Your task to perform on an android device: Open location settings Image 0: 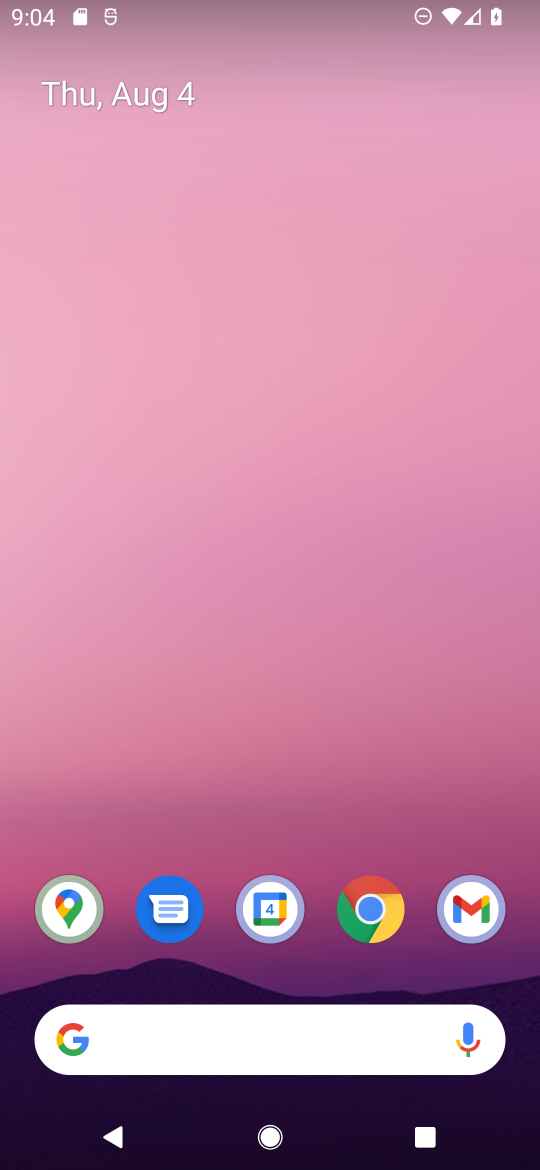
Step 0: drag from (419, 812) to (446, 174)
Your task to perform on an android device: Open location settings Image 1: 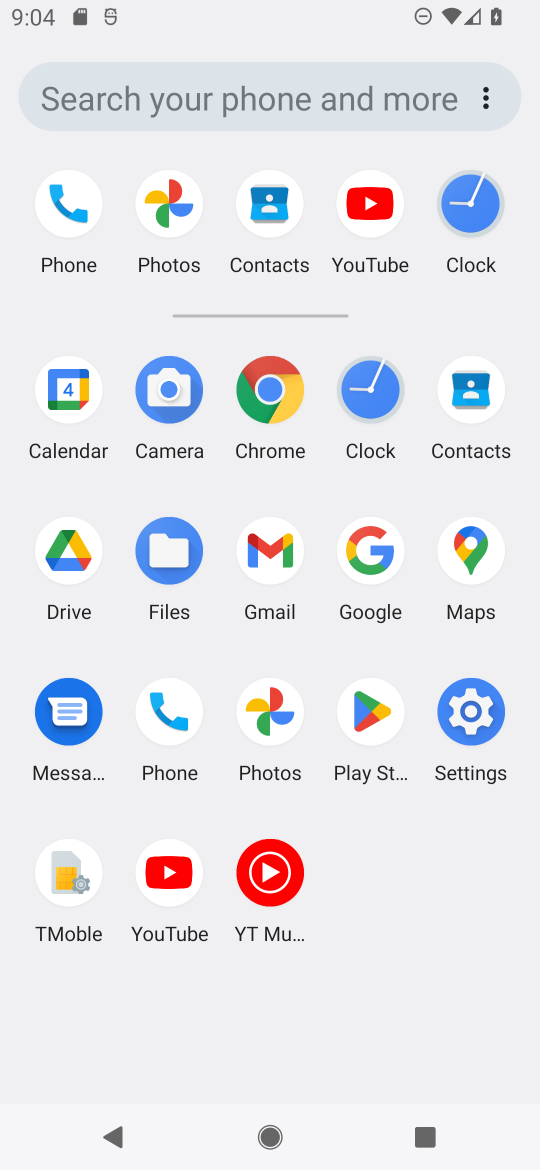
Step 1: click (473, 723)
Your task to perform on an android device: Open location settings Image 2: 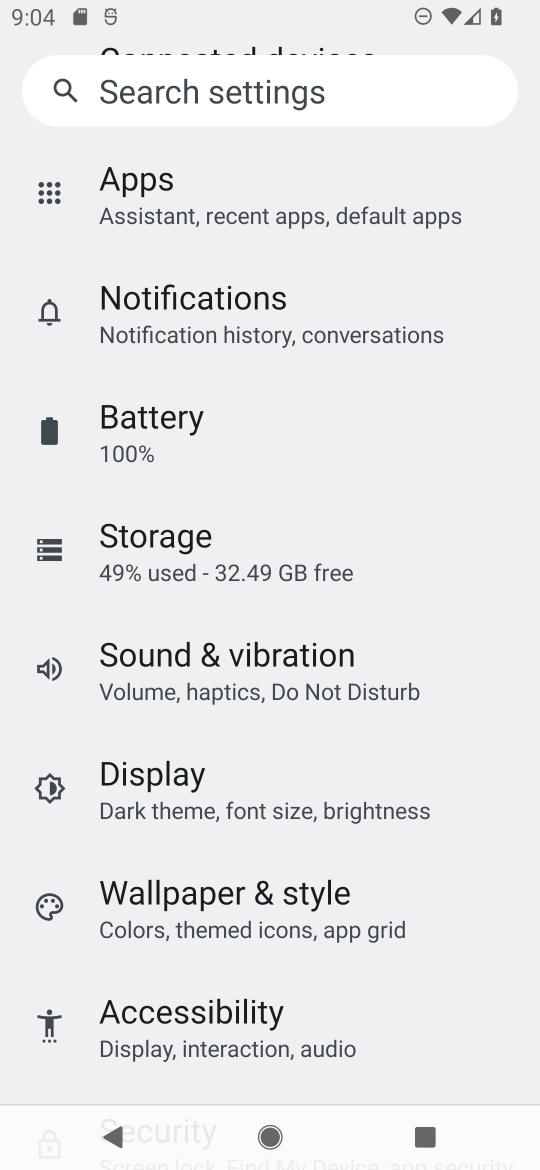
Step 2: drag from (452, 986) to (484, 721)
Your task to perform on an android device: Open location settings Image 3: 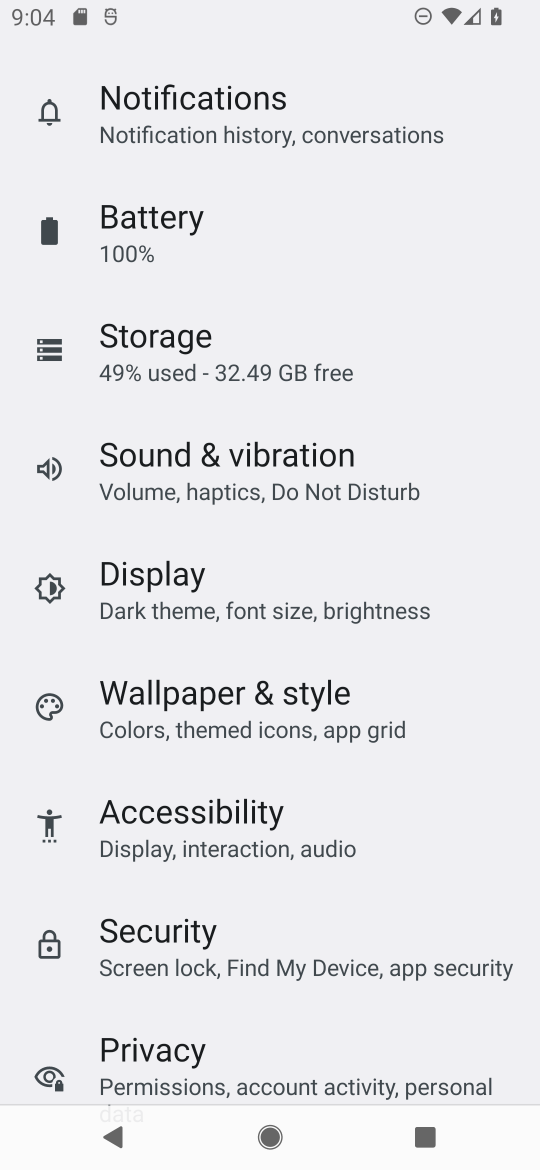
Step 3: drag from (452, 1030) to (483, 737)
Your task to perform on an android device: Open location settings Image 4: 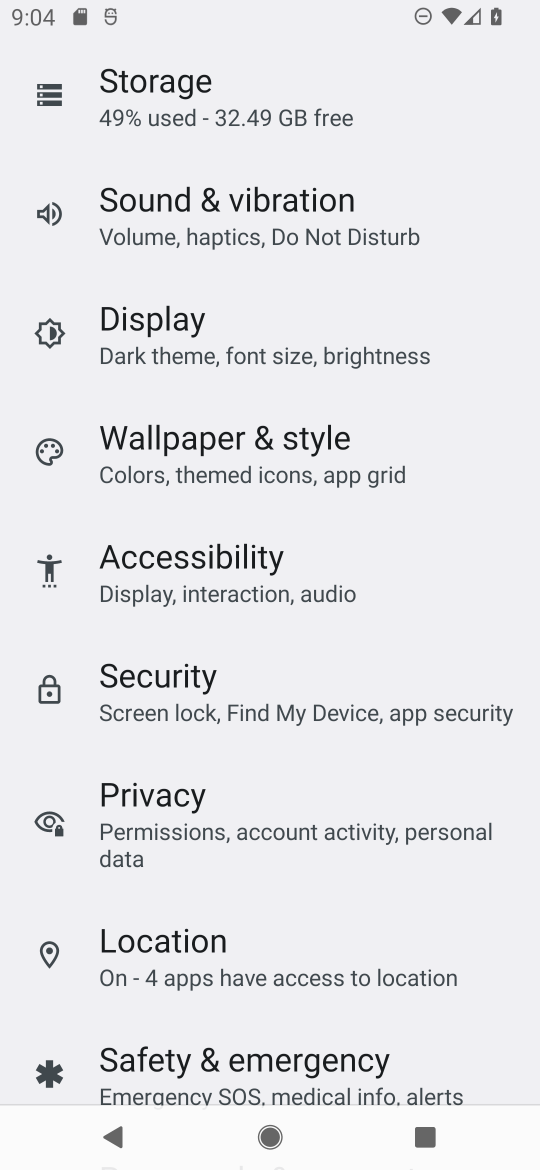
Step 4: drag from (473, 1022) to (495, 712)
Your task to perform on an android device: Open location settings Image 5: 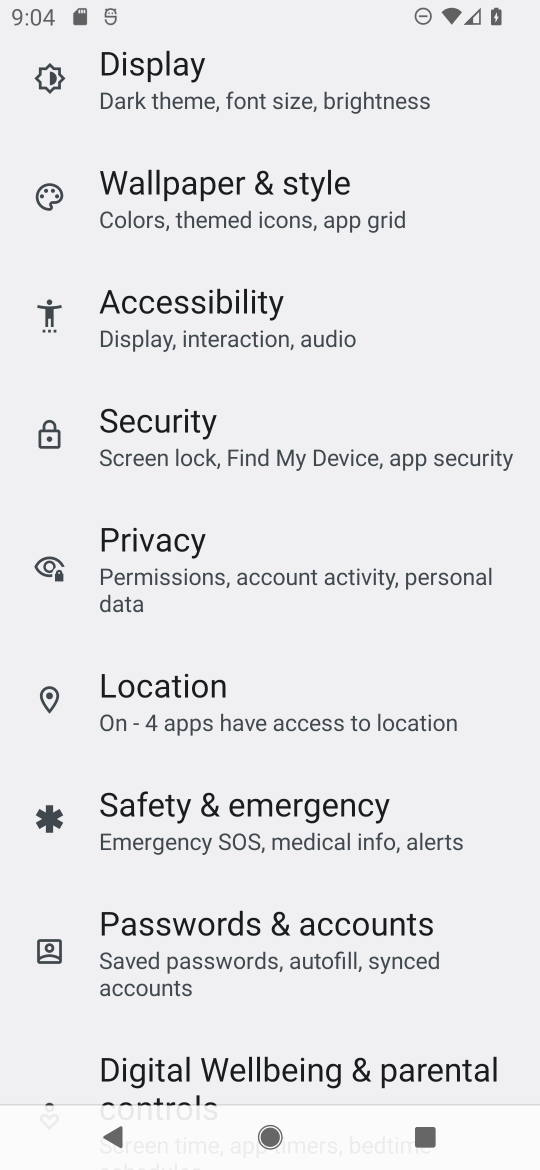
Step 5: drag from (495, 981) to (508, 599)
Your task to perform on an android device: Open location settings Image 6: 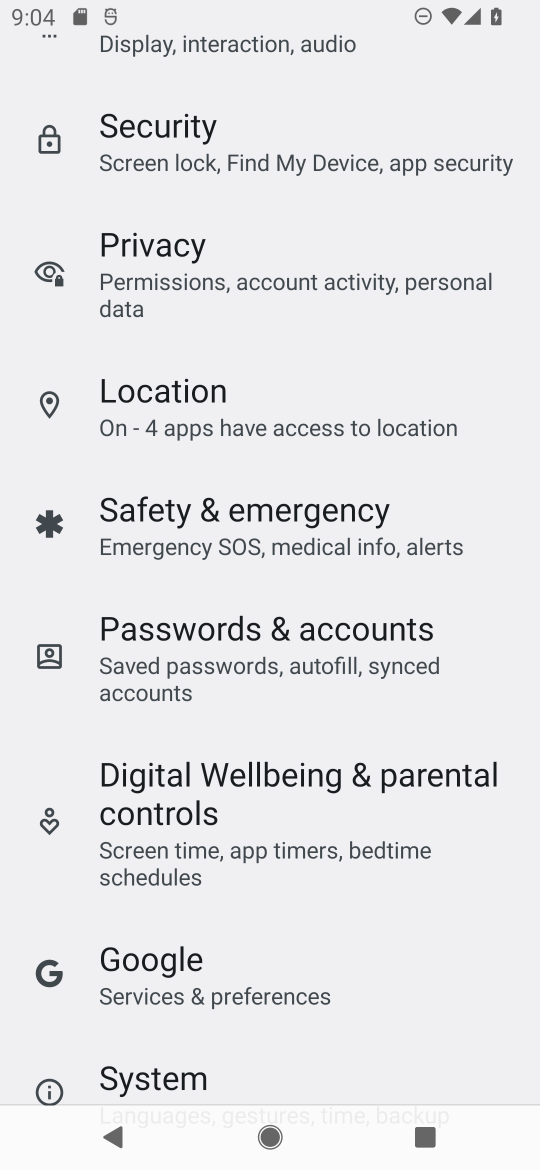
Step 6: drag from (458, 913) to (485, 483)
Your task to perform on an android device: Open location settings Image 7: 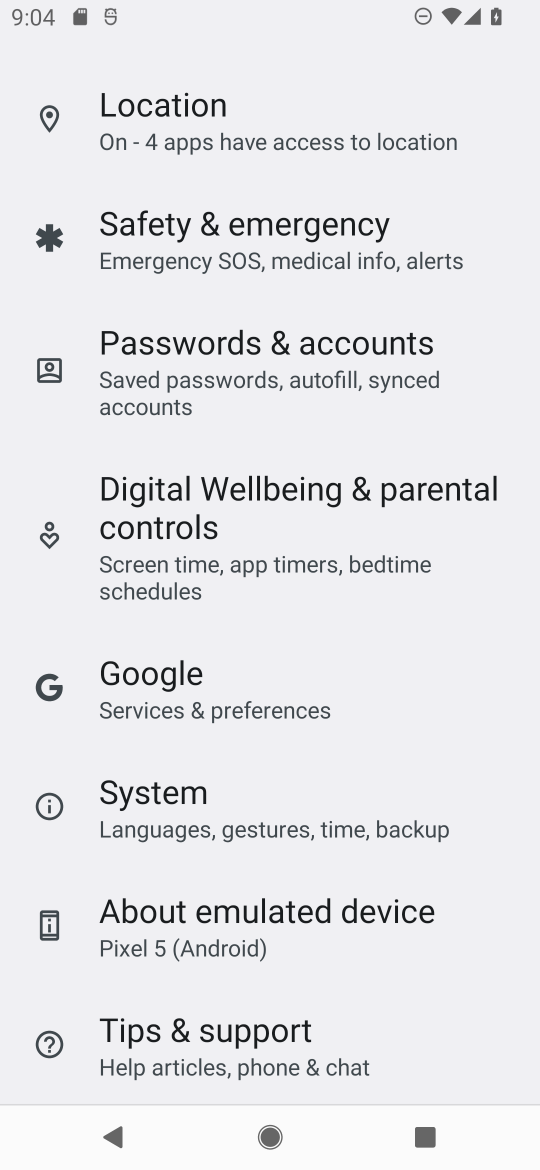
Step 7: drag from (424, 930) to (457, 592)
Your task to perform on an android device: Open location settings Image 8: 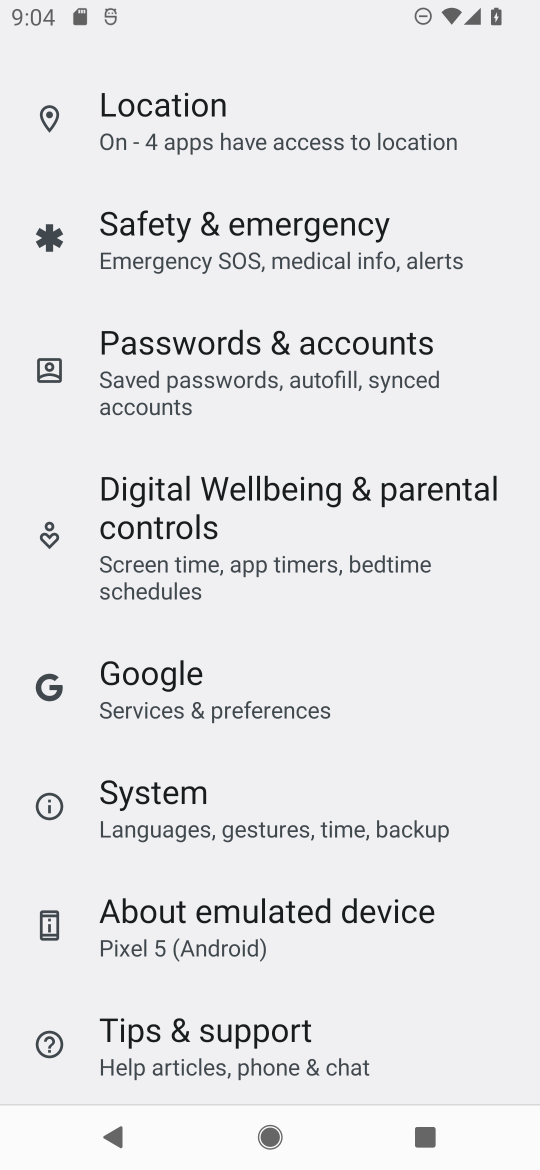
Step 8: drag from (477, 356) to (477, 643)
Your task to perform on an android device: Open location settings Image 9: 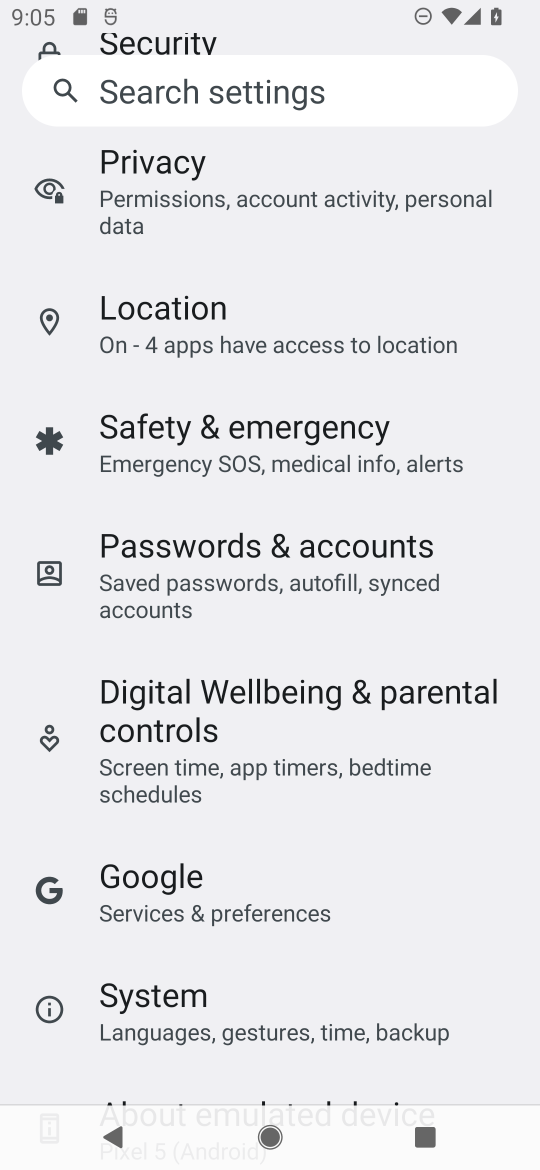
Step 9: drag from (418, 961) to (460, 705)
Your task to perform on an android device: Open location settings Image 10: 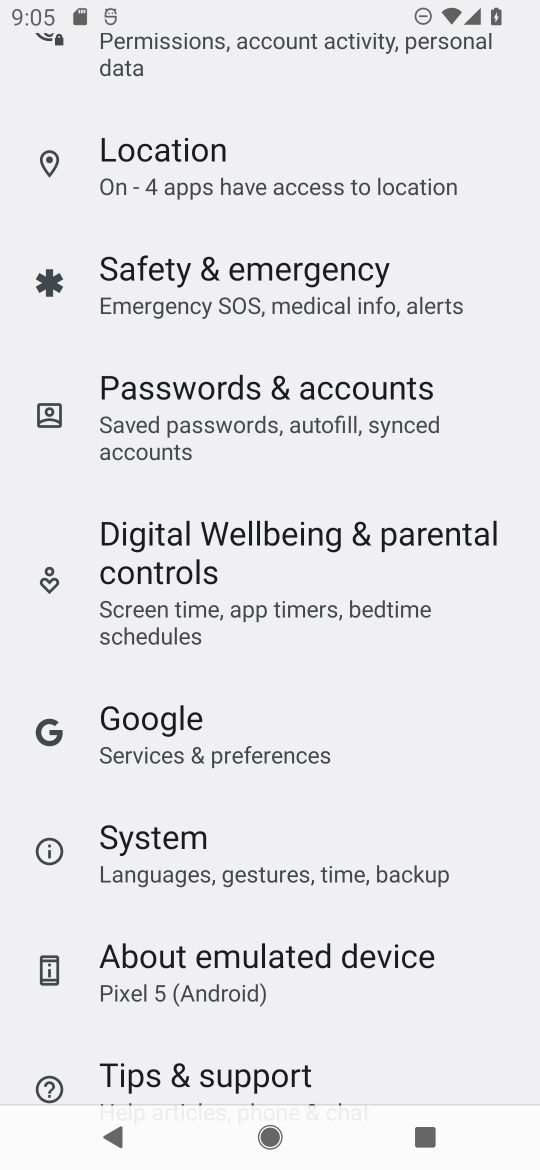
Step 10: drag from (432, 1049) to (497, 575)
Your task to perform on an android device: Open location settings Image 11: 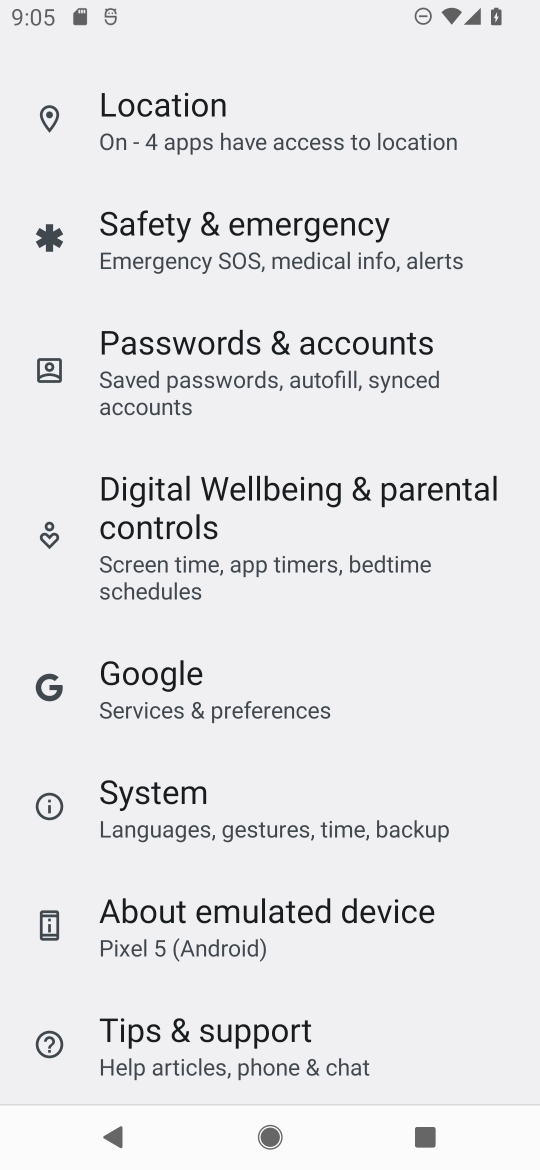
Step 11: drag from (426, 958) to (425, 626)
Your task to perform on an android device: Open location settings Image 12: 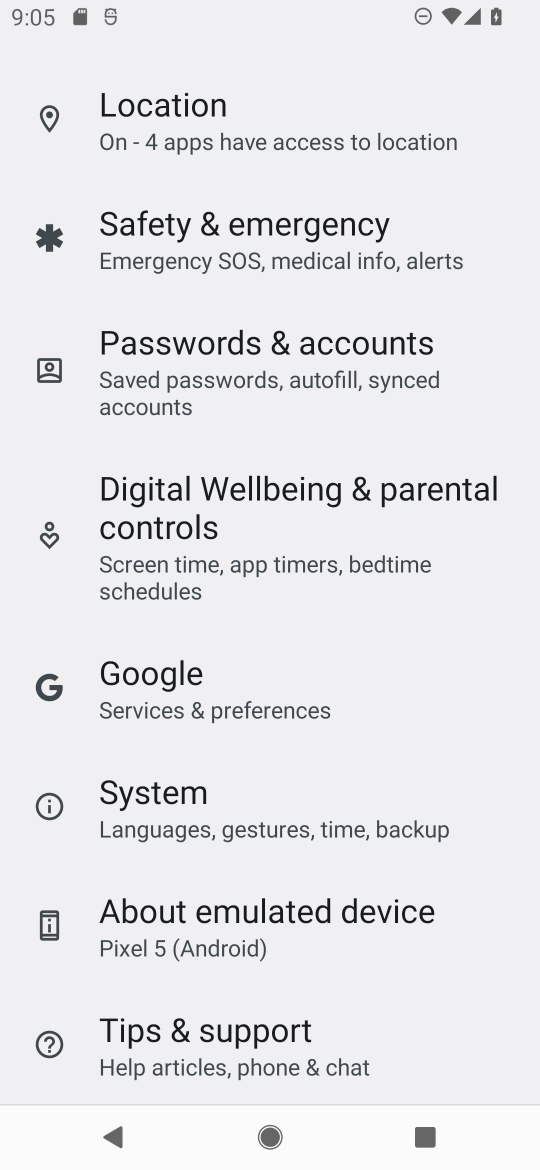
Step 12: drag from (433, 607) to (463, 873)
Your task to perform on an android device: Open location settings Image 13: 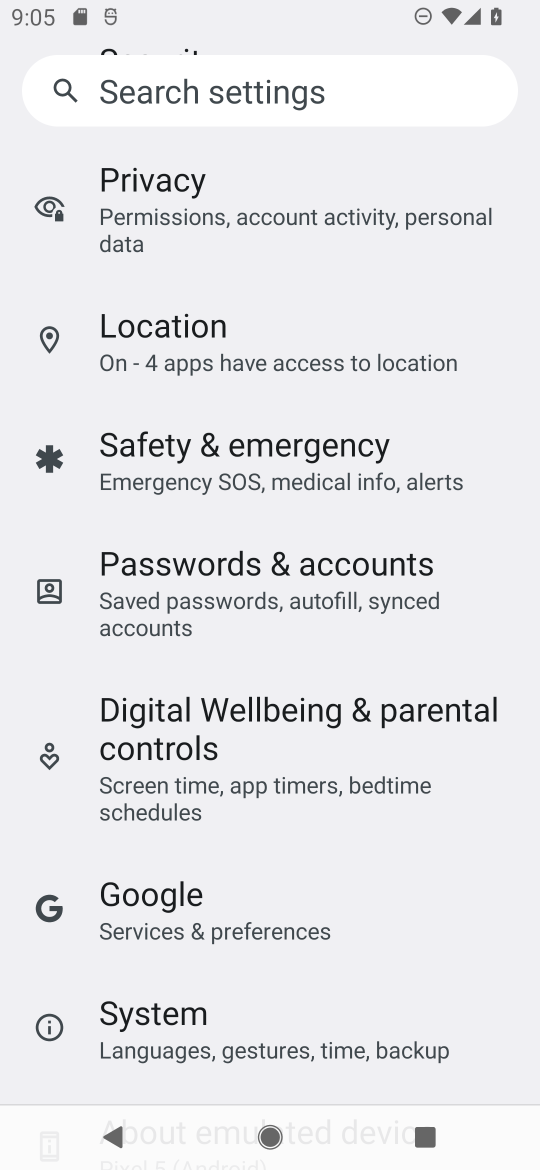
Step 13: click (299, 341)
Your task to perform on an android device: Open location settings Image 14: 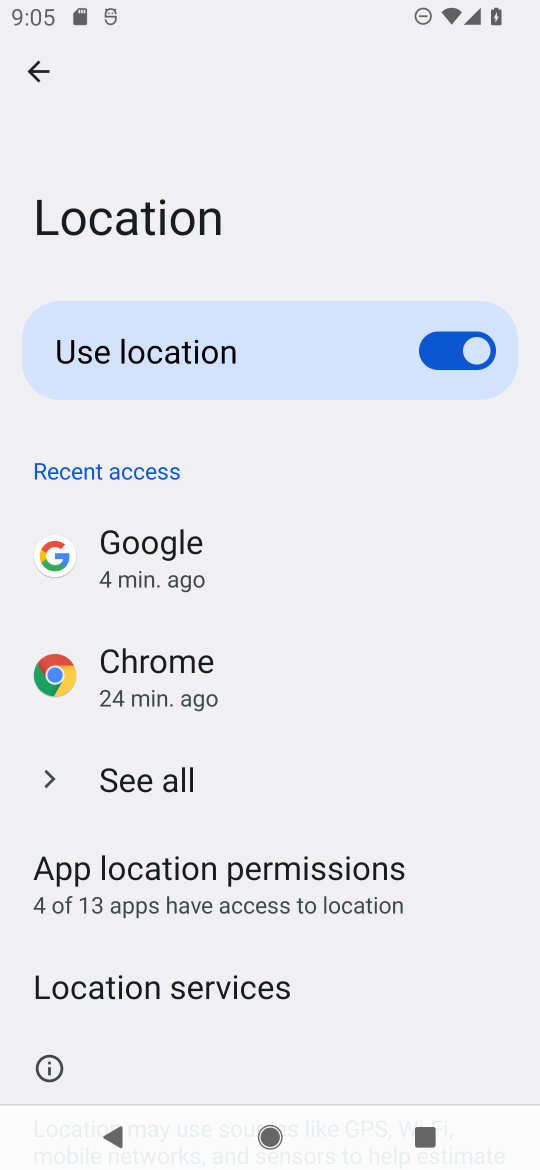
Step 14: task complete